Your task to perform on an android device: Open Google Image 0: 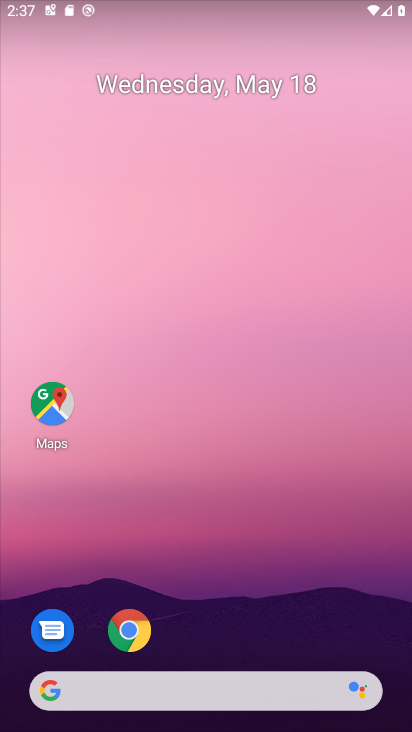
Step 0: drag from (207, 653) to (207, 28)
Your task to perform on an android device: Open Google Image 1: 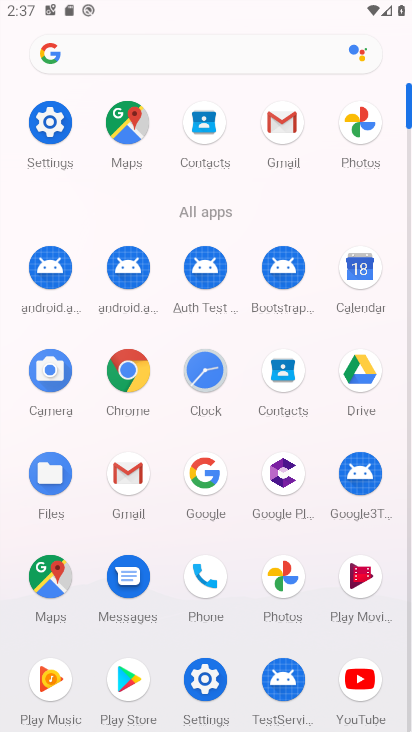
Step 1: click (204, 469)
Your task to perform on an android device: Open Google Image 2: 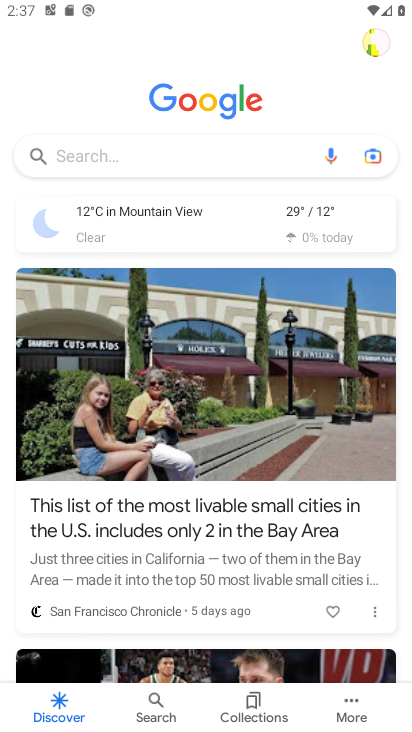
Step 2: task complete